Your task to perform on an android device: move an email to a new category in the gmail app Image 0: 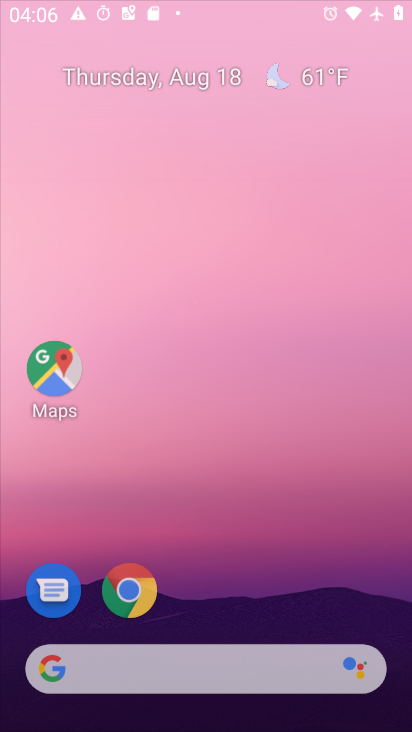
Step 0: press home button
Your task to perform on an android device: move an email to a new category in the gmail app Image 1: 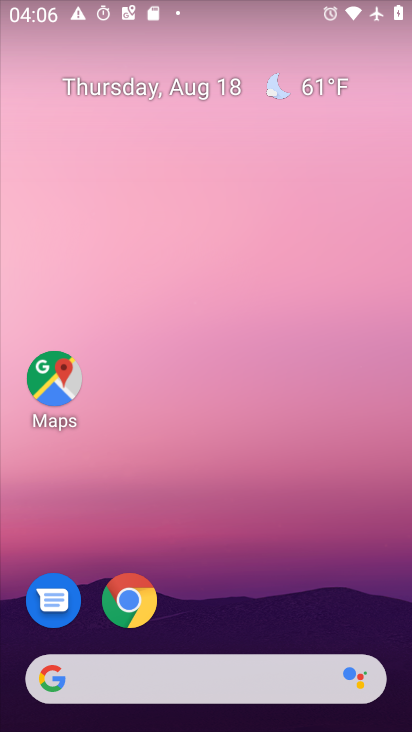
Step 1: drag from (225, 632) to (246, 105)
Your task to perform on an android device: move an email to a new category in the gmail app Image 2: 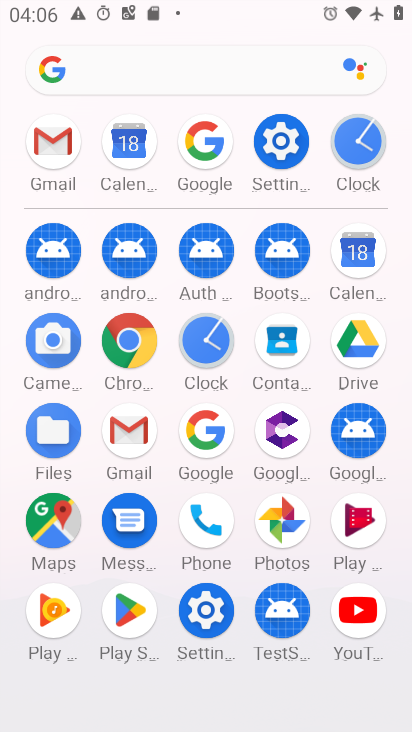
Step 2: click (50, 141)
Your task to perform on an android device: move an email to a new category in the gmail app Image 3: 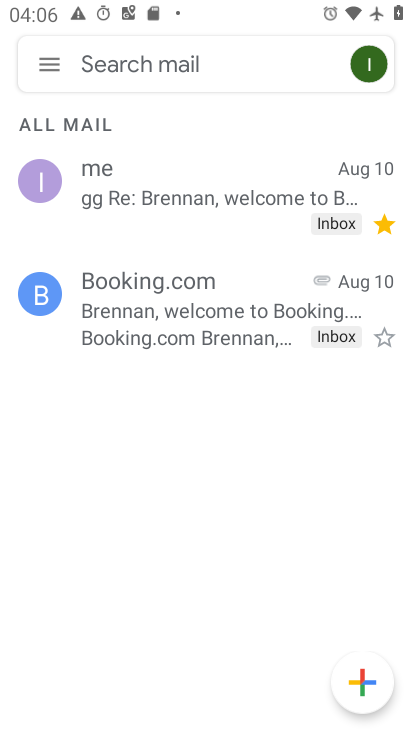
Step 3: click (239, 338)
Your task to perform on an android device: move an email to a new category in the gmail app Image 4: 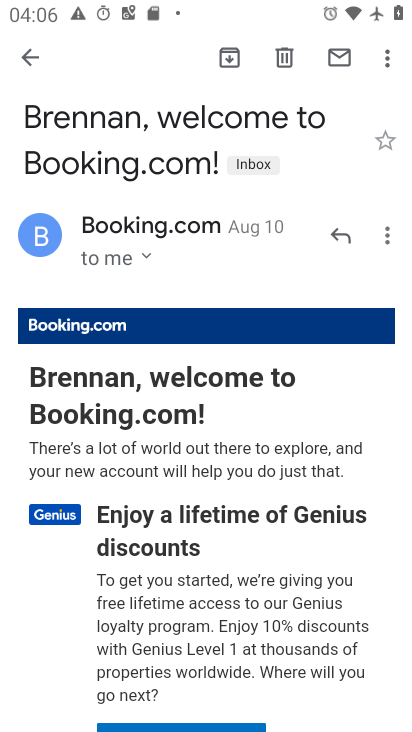
Step 4: click (394, 44)
Your task to perform on an android device: move an email to a new category in the gmail app Image 5: 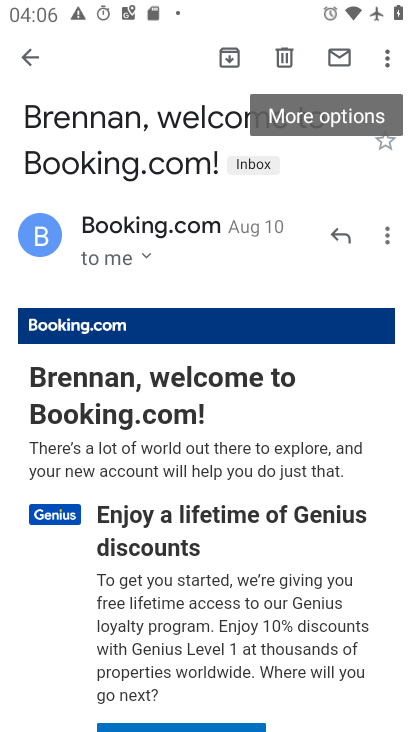
Step 5: click (391, 62)
Your task to perform on an android device: move an email to a new category in the gmail app Image 6: 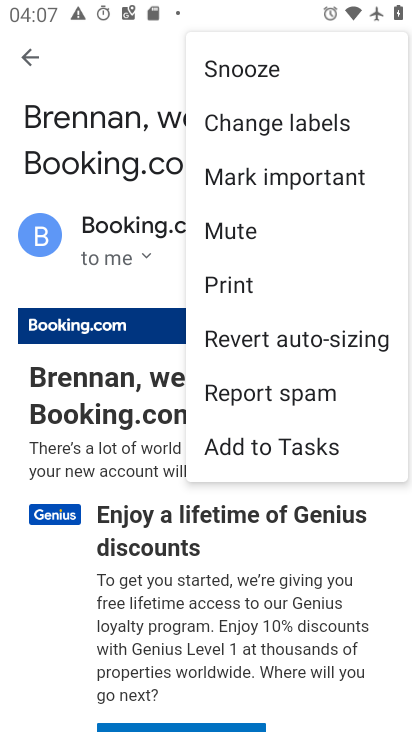
Step 6: click (274, 132)
Your task to perform on an android device: move an email to a new category in the gmail app Image 7: 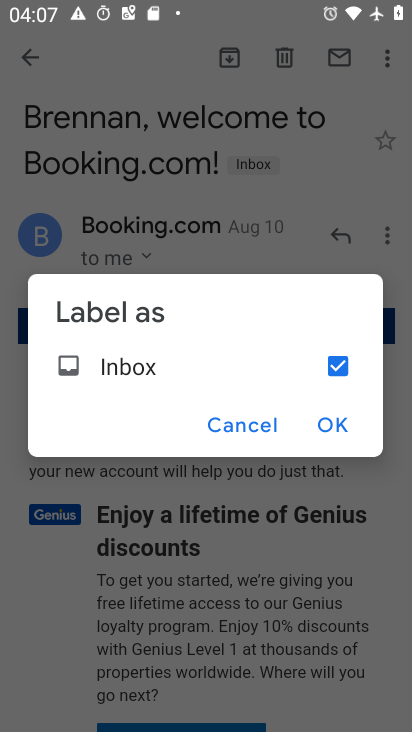
Step 7: click (339, 427)
Your task to perform on an android device: move an email to a new category in the gmail app Image 8: 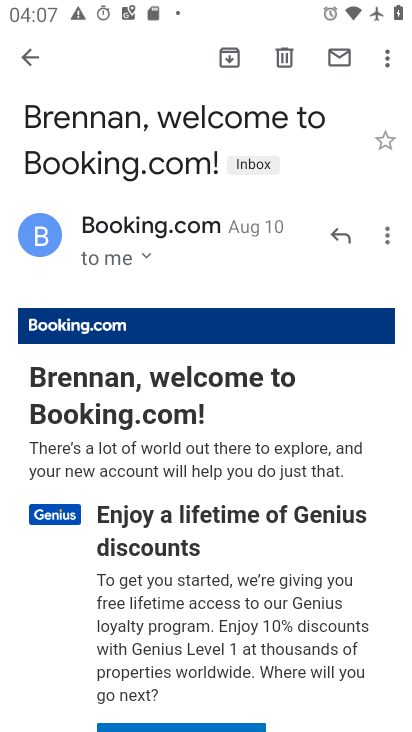
Step 8: task complete